Your task to perform on an android device: check google app version Image 0: 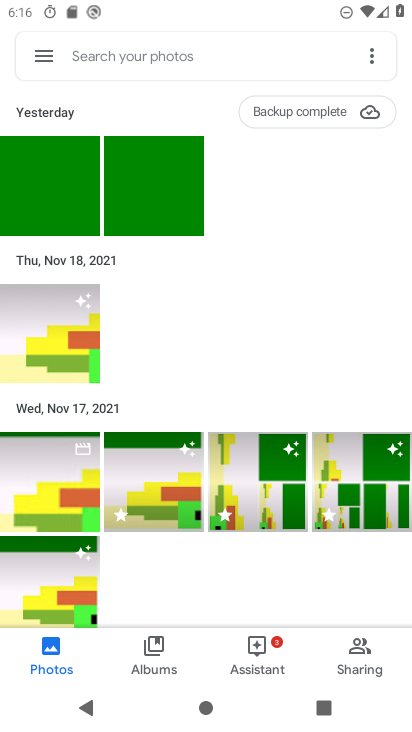
Step 0: press home button
Your task to perform on an android device: check google app version Image 1: 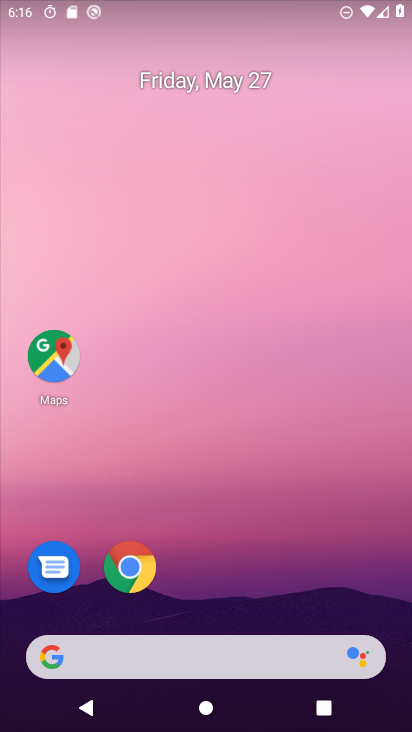
Step 1: click (45, 666)
Your task to perform on an android device: check google app version Image 2: 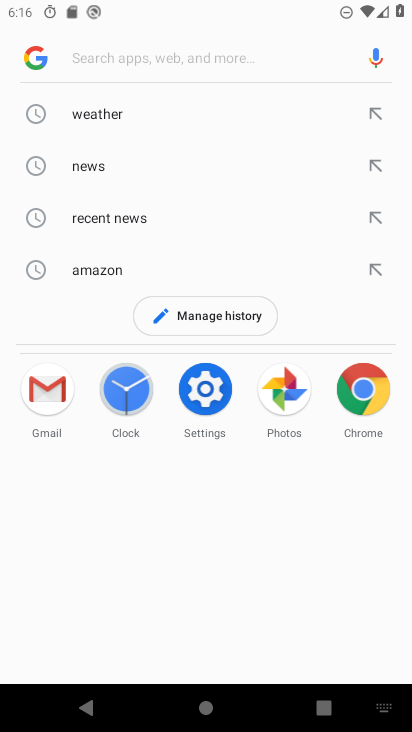
Step 2: click (32, 59)
Your task to perform on an android device: check google app version Image 3: 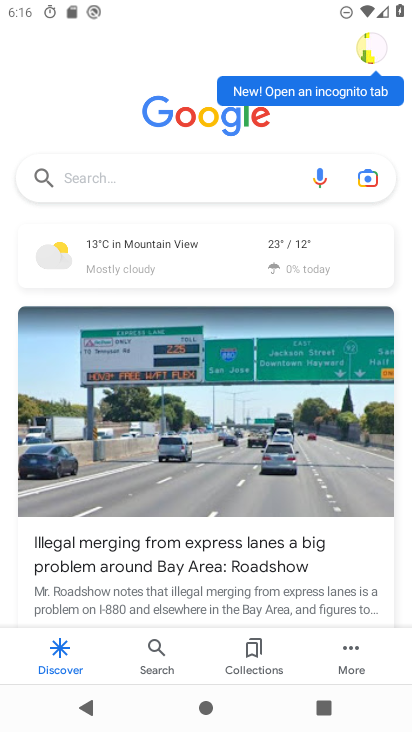
Step 3: click (341, 655)
Your task to perform on an android device: check google app version Image 4: 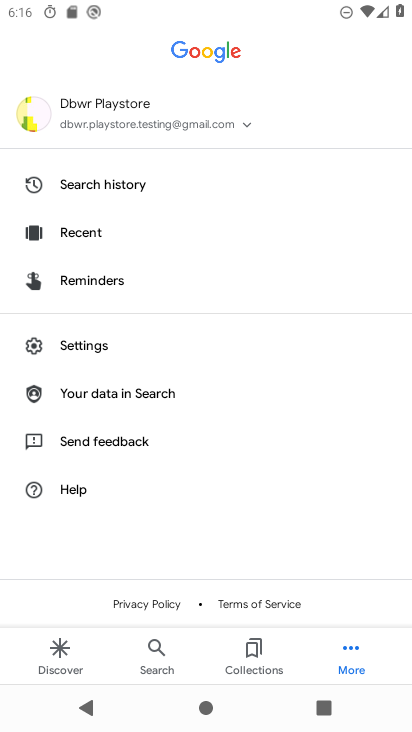
Step 4: click (86, 348)
Your task to perform on an android device: check google app version Image 5: 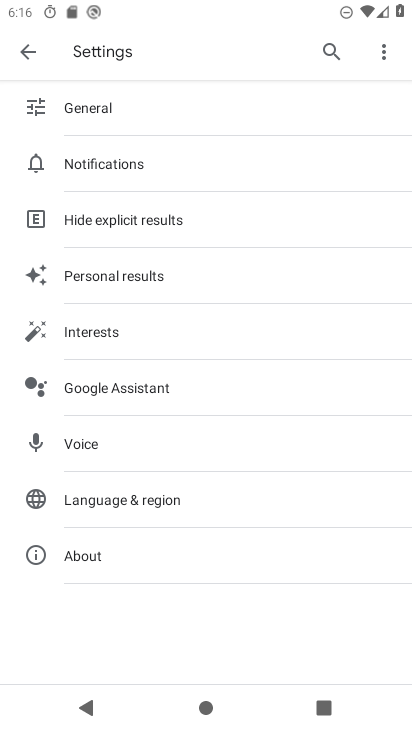
Step 5: click (78, 557)
Your task to perform on an android device: check google app version Image 6: 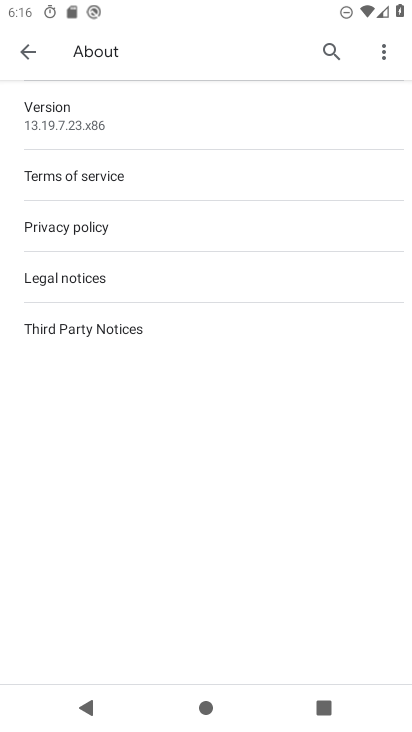
Step 6: task complete